Your task to perform on an android device: Go to network settings Image 0: 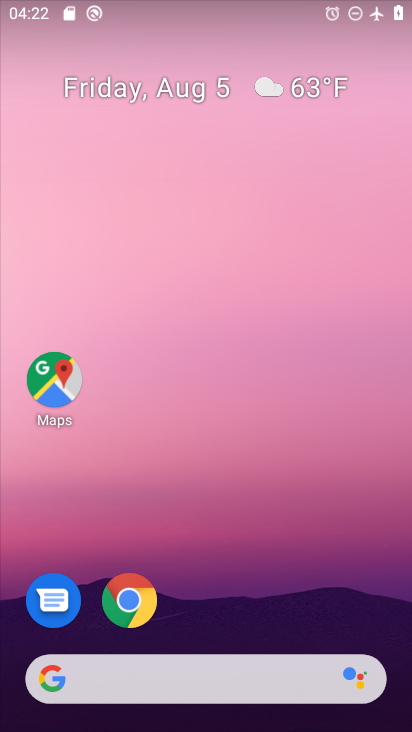
Step 0: press home button
Your task to perform on an android device: Go to network settings Image 1: 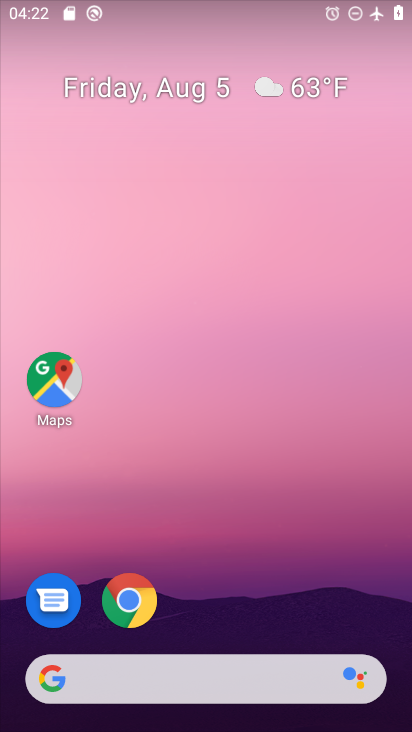
Step 1: drag from (184, 689) to (244, 269)
Your task to perform on an android device: Go to network settings Image 2: 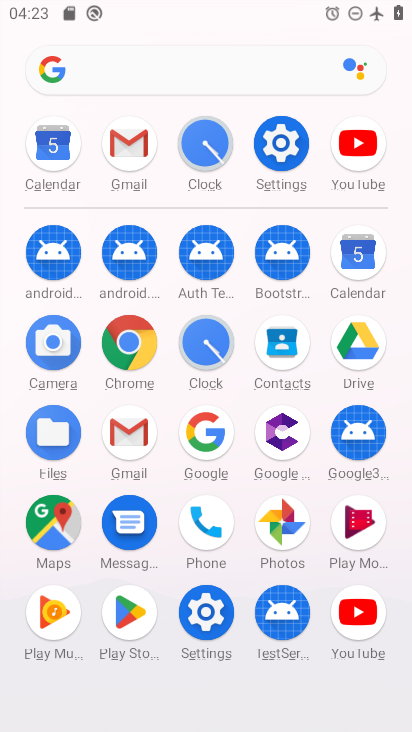
Step 2: click (207, 610)
Your task to perform on an android device: Go to network settings Image 3: 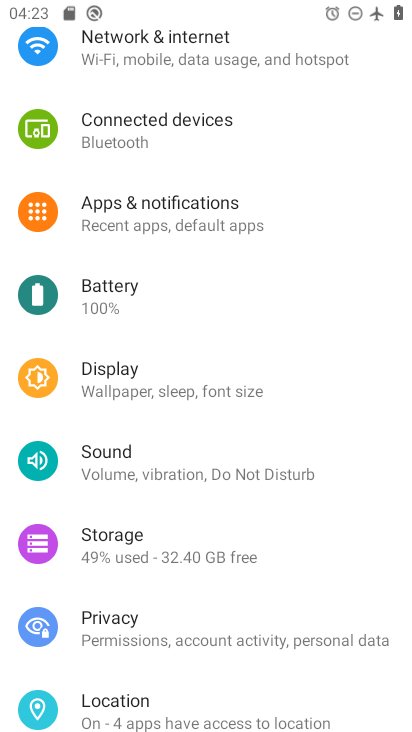
Step 3: click (181, 57)
Your task to perform on an android device: Go to network settings Image 4: 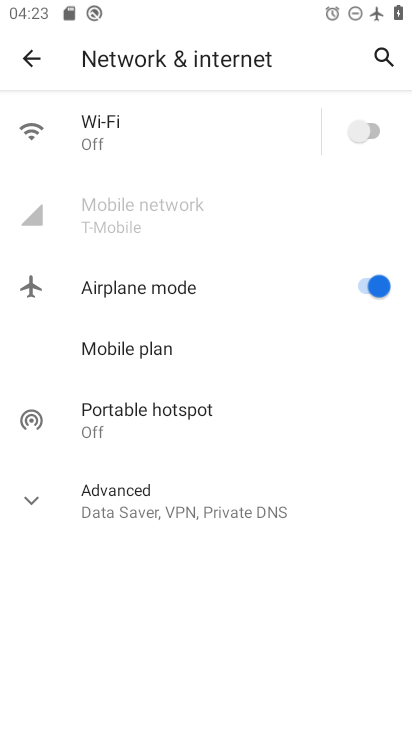
Step 4: task complete